Your task to perform on an android device: Search for Mexican restaurants on Maps Image 0: 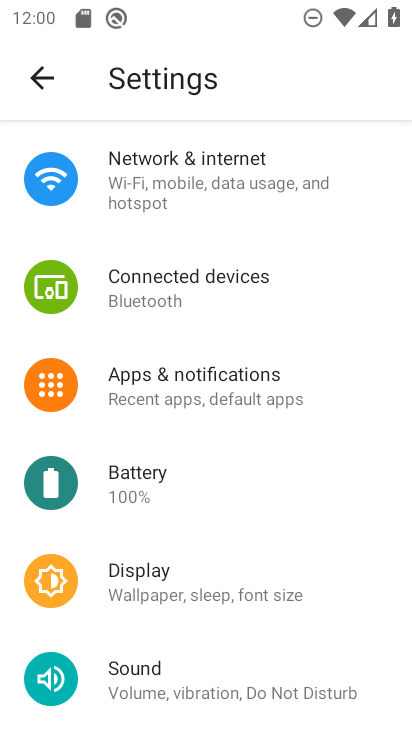
Step 0: press home button
Your task to perform on an android device: Search for Mexican restaurants on Maps Image 1: 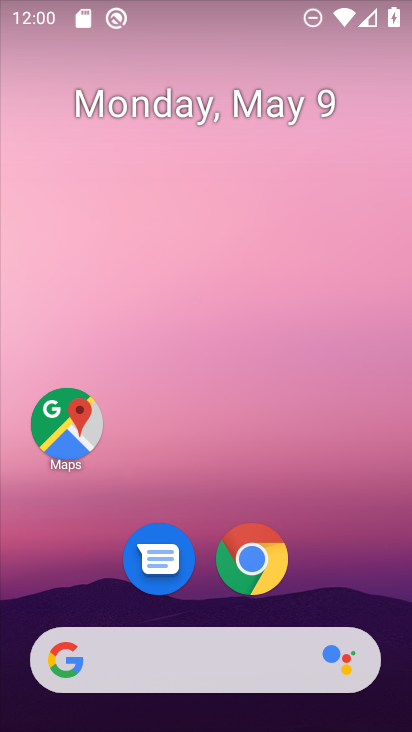
Step 1: click (77, 422)
Your task to perform on an android device: Search for Mexican restaurants on Maps Image 2: 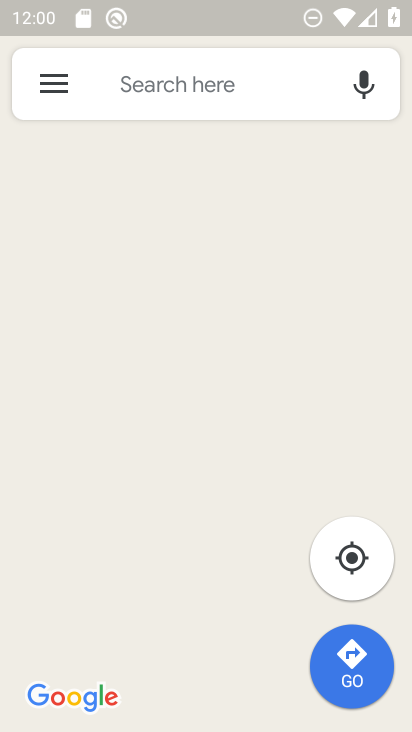
Step 2: click (175, 99)
Your task to perform on an android device: Search for Mexican restaurants on Maps Image 3: 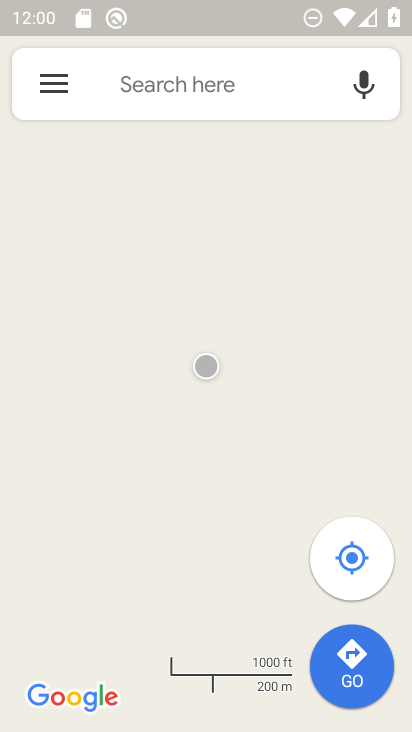
Step 3: click (175, 99)
Your task to perform on an android device: Search for Mexican restaurants on Maps Image 4: 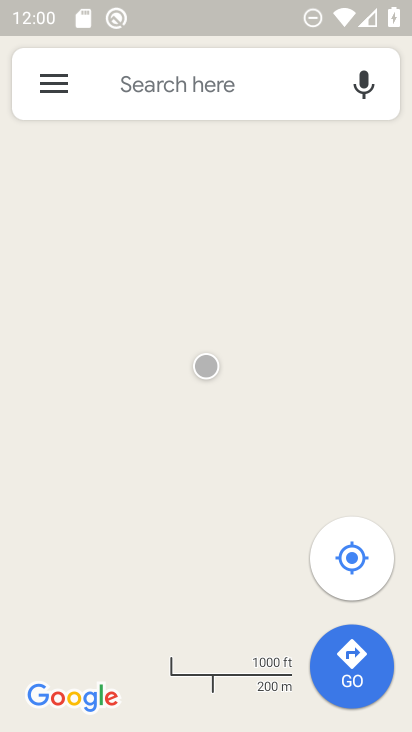
Step 4: click (175, 99)
Your task to perform on an android device: Search for Mexican restaurants on Maps Image 5: 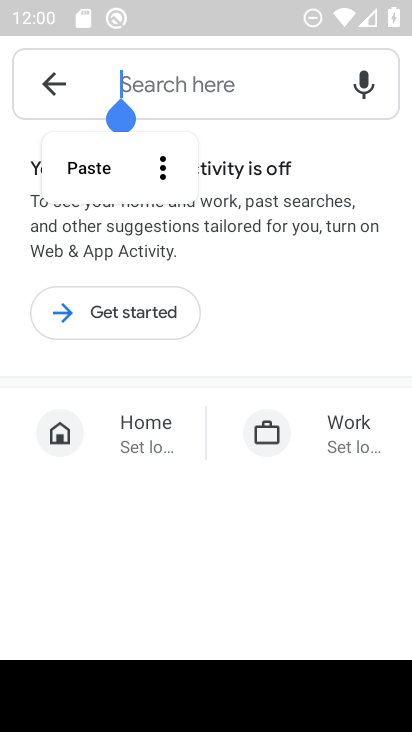
Step 5: type " Mexican restaurants"
Your task to perform on an android device: Search for Mexican restaurants on Maps Image 6: 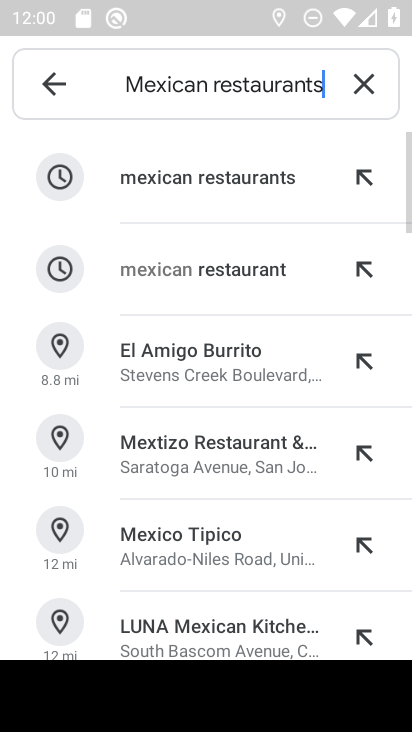
Step 6: click (186, 179)
Your task to perform on an android device: Search for Mexican restaurants on Maps Image 7: 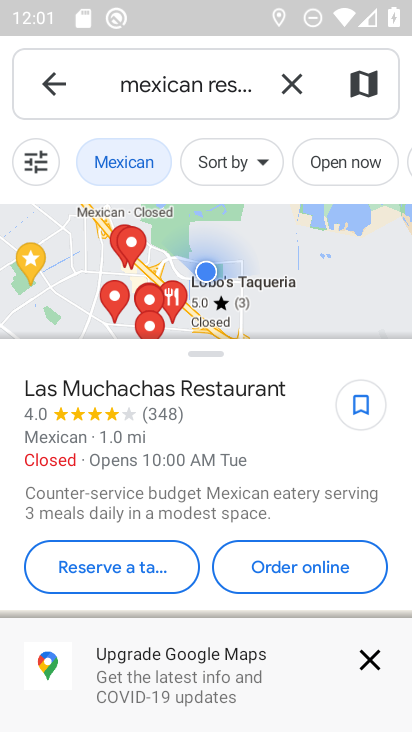
Step 7: task complete